Your task to perform on an android device: change the clock display to analog Image 0: 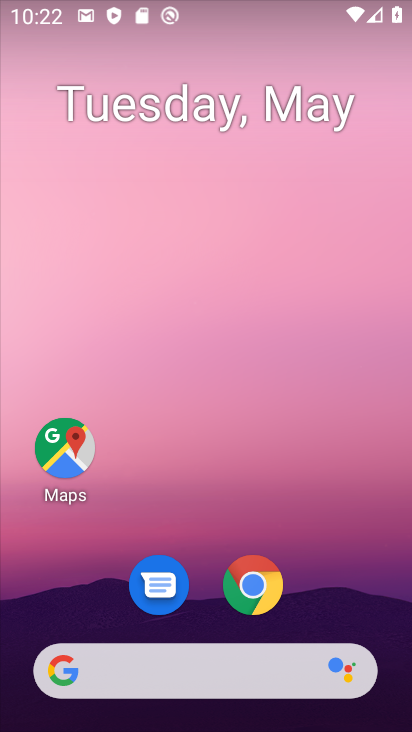
Step 0: drag from (326, 570) to (393, 68)
Your task to perform on an android device: change the clock display to analog Image 1: 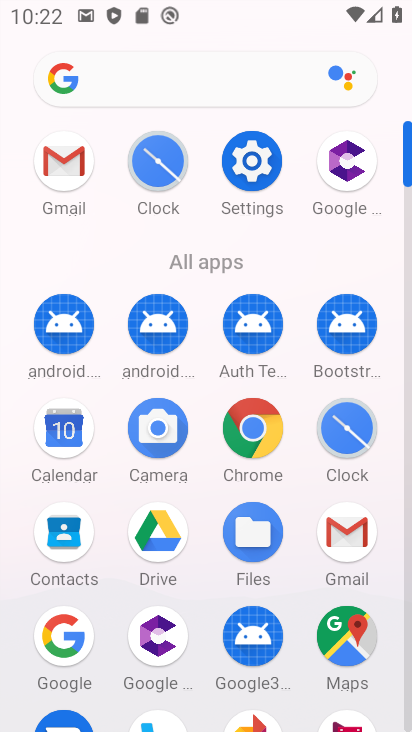
Step 1: click (164, 149)
Your task to perform on an android device: change the clock display to analog Image 2: 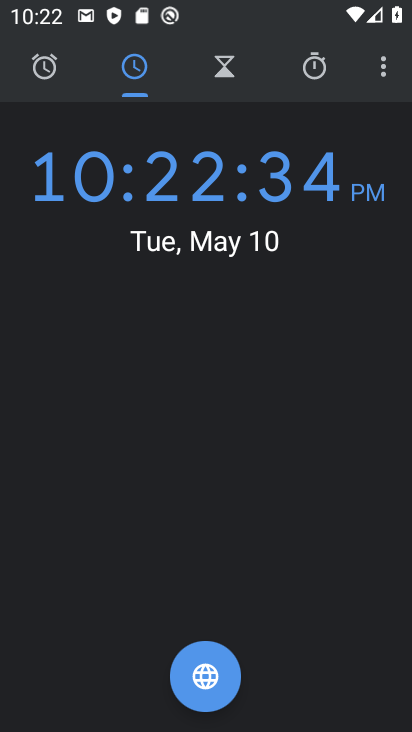
Step 2: click (378, 75)
Your task to perform on an android device: change the clock display to analog Image 3: 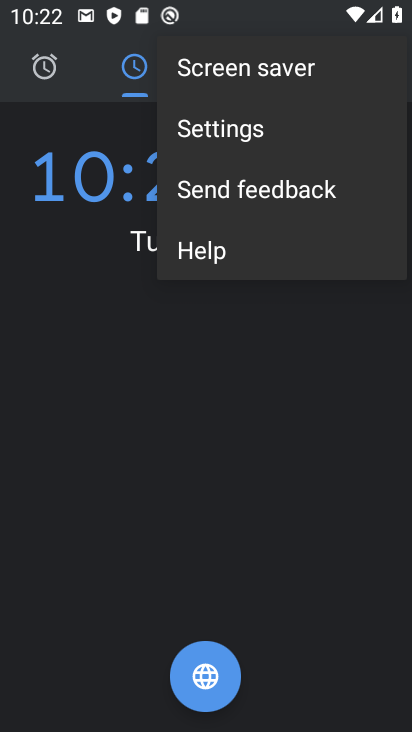
Step 3: click (290, 135)
Your task to perform on an android device: change the clock display to analog Image 4: 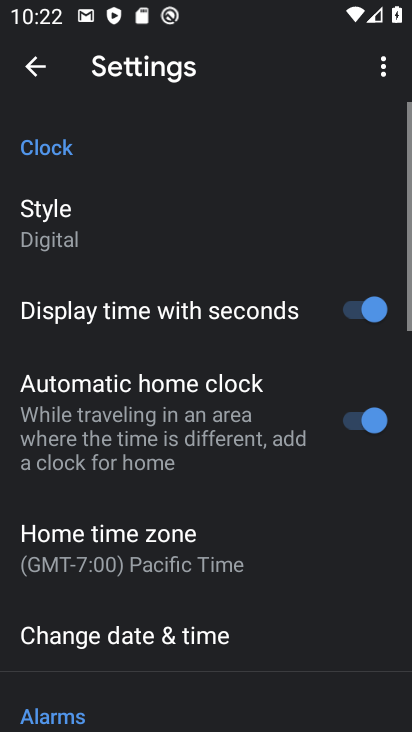
Step 4: click (83, 218)
Your task to perform on an android device: change the clock display to analog Image 5: 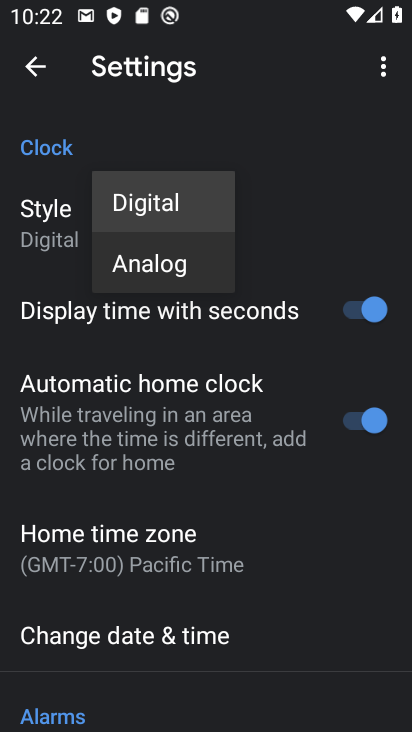
Step 5: click (131, 266)
Your task to perform on an android device: change the clock display to analog Image 6: 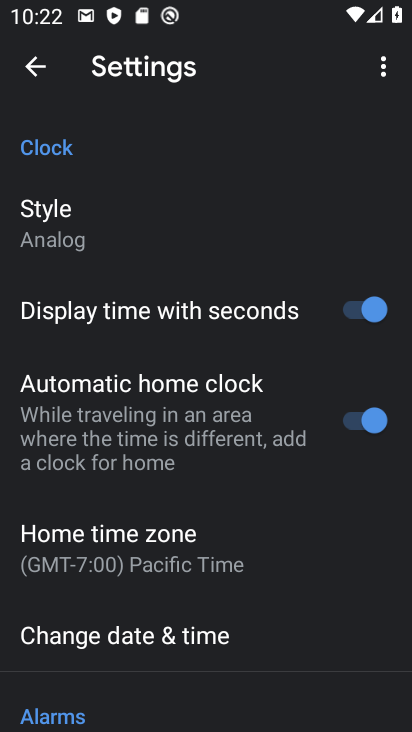
Step 6: click (42, 66)
Your task to perform on an android device: change the clock display to analog Image 7: 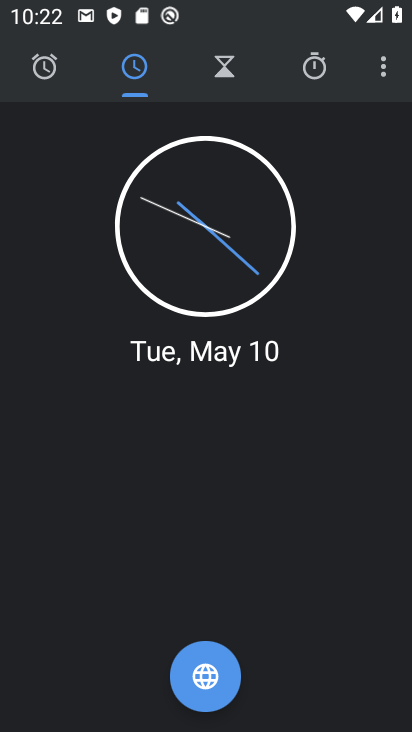
Step 7: task complete